Your task to perform on an android device: turn on airplane mode Image 0: 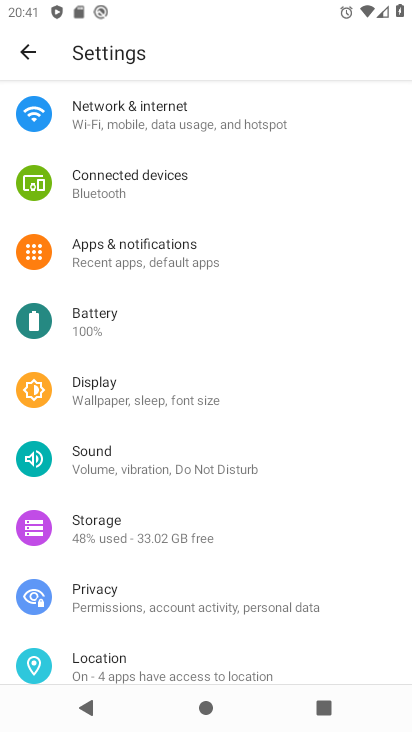
Step 0: click (185, 131)
Your task to perform on an android device: turn on airplane mode Image 1: 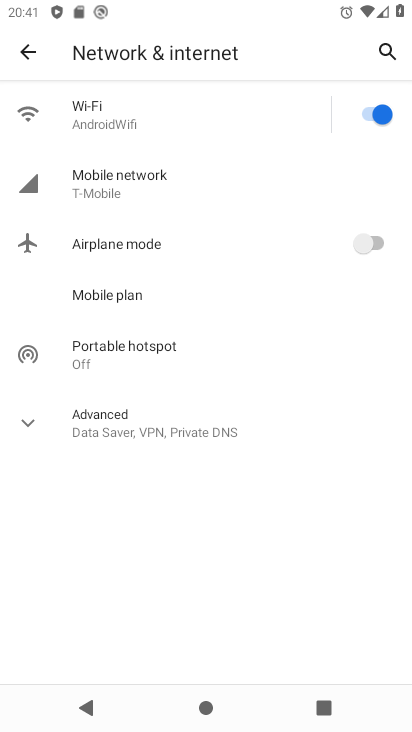
Step 1: click (378, 247)
Your task to perform on an android device: turn on airplane mode Image 2: 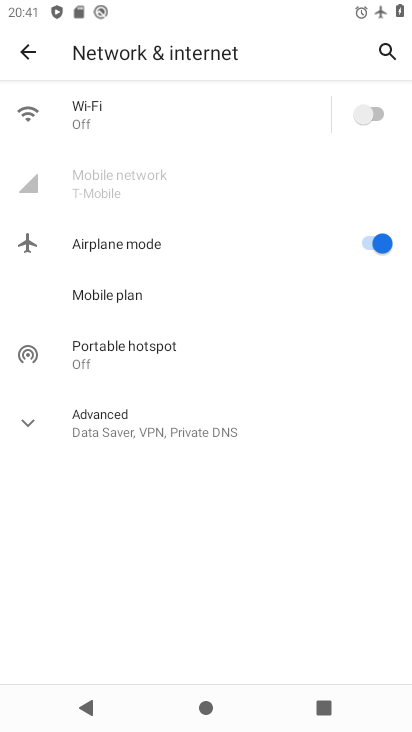
Step 2: task complete